Your task to perform on an android device: clear history in the chrome app Image 0: 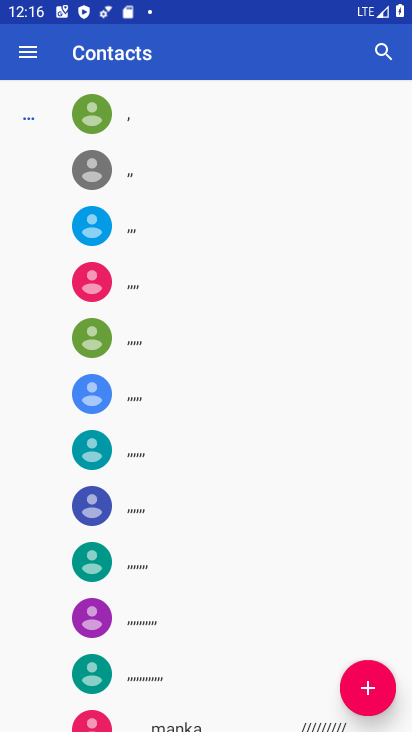
Step 0: press home button
Your task to perform on an android device: clear history in the chrome app Image 1: 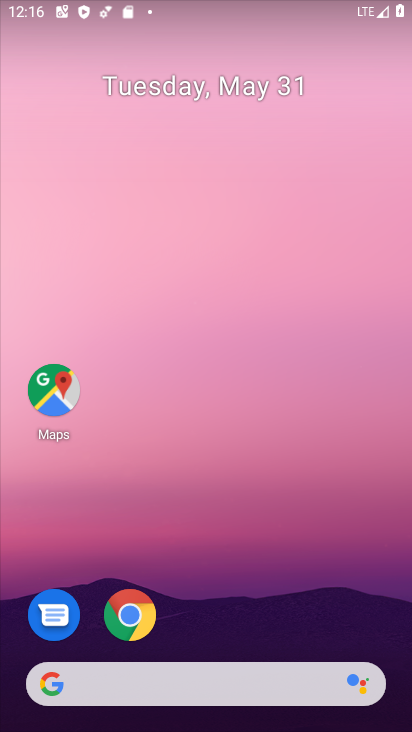
Step 1: click (134, 612)
Your task to perform on an android device: clear history in the chrome app Image 2: 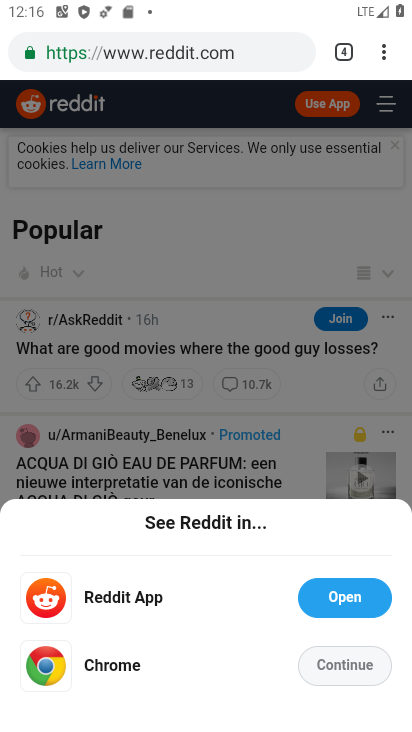
Step 2: click (385, 51)
Your task to perform on an android device: clear history in the chrome app Image 3: 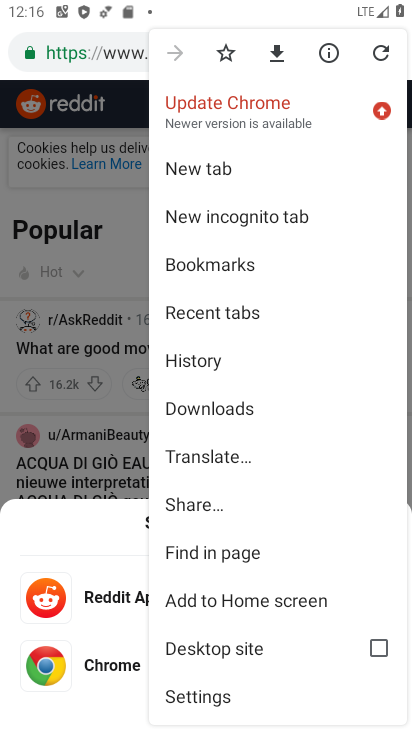
Step 3: click (204, 354)
Your task to perform on an android device: clear history in the chrome app Image 4: 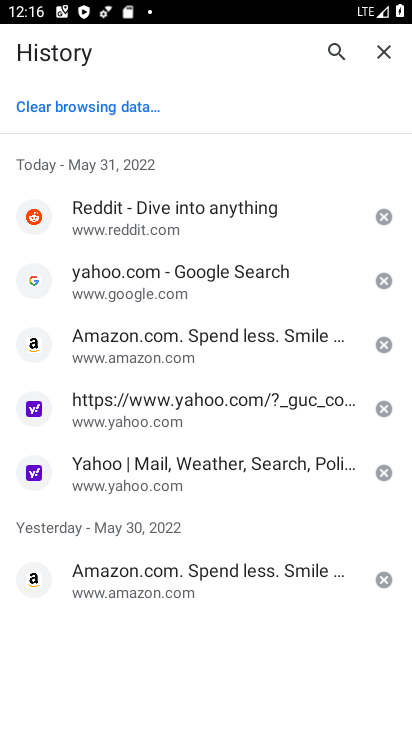
Step 4: click (113, 98)
Your task to perform on an android device: clear history in the chrome app Image 5: 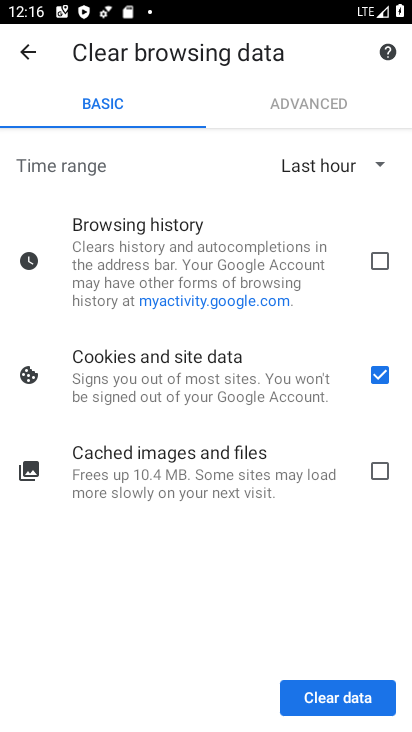
Step 5: click (376, 265)
Your task to perform on an android device: clear history in the chrome app Image 6: 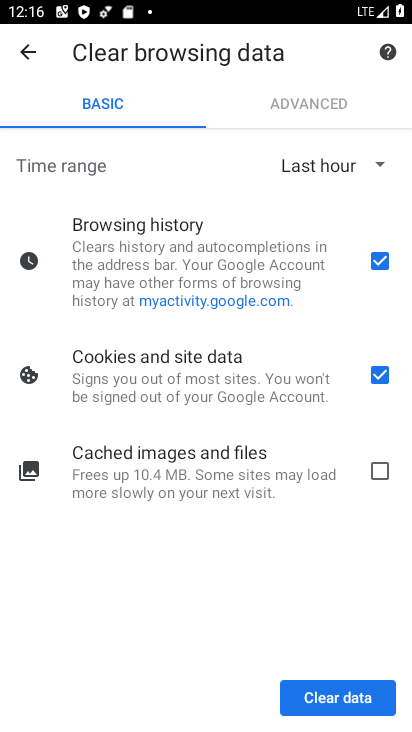
Step 6: click (365, 491)
Your task to perform on an android device: clear history in the chrome app Image 7: 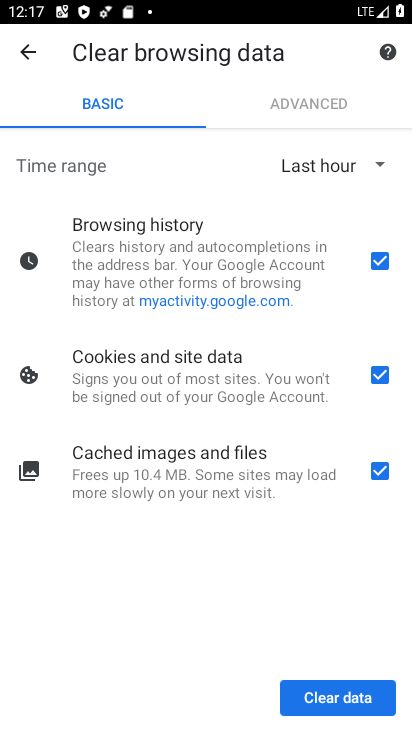
Step 7: click (334, 707)
Your task to perform on an android device: clear history in the chrome app Image 8: 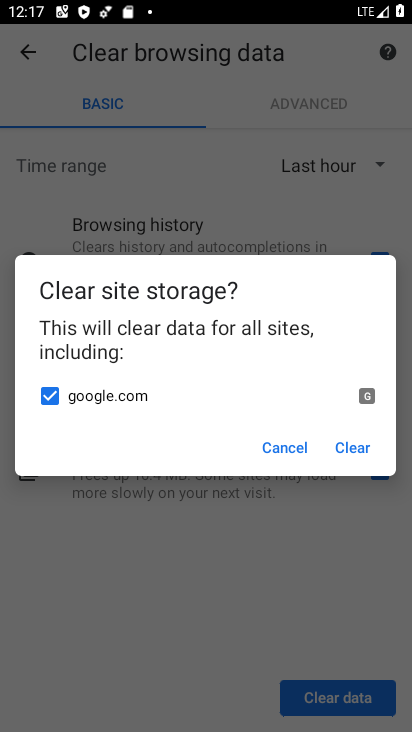
Step 8: click (352, 434)
Your task to perform on an android device: clear history in the chrome app Image 9: 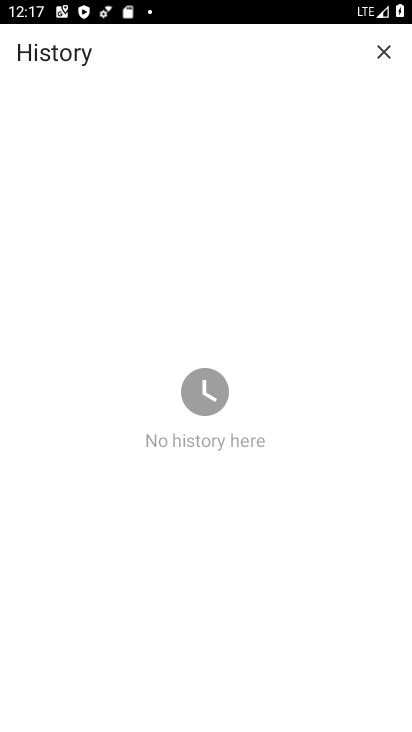
Step 9: task complete